Your task to perform on an android device: open app "Grab" Image 0: 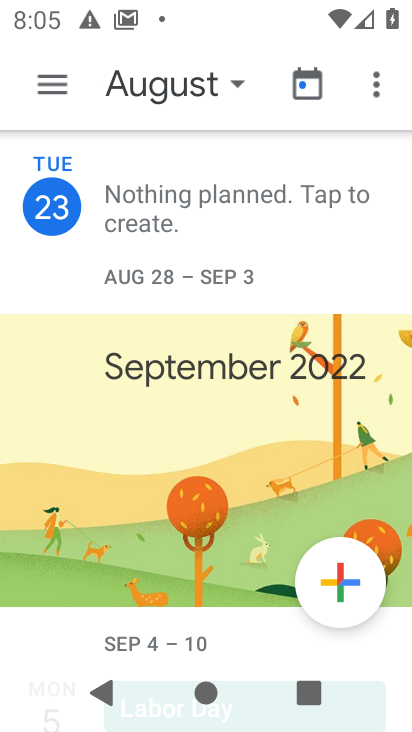
Step 0: press back button
Your task to perform on an android device: open app "Grab" Image 1: 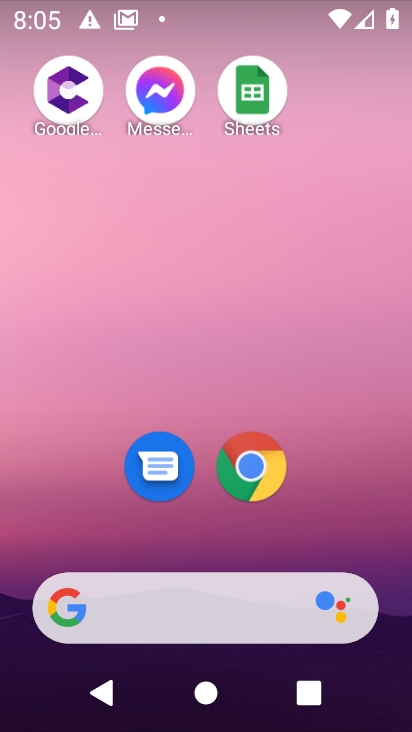
Step 1: drag from (190, 532) to (265, 21)
Your task to perform on an android device: open app "Grab" Image 2: 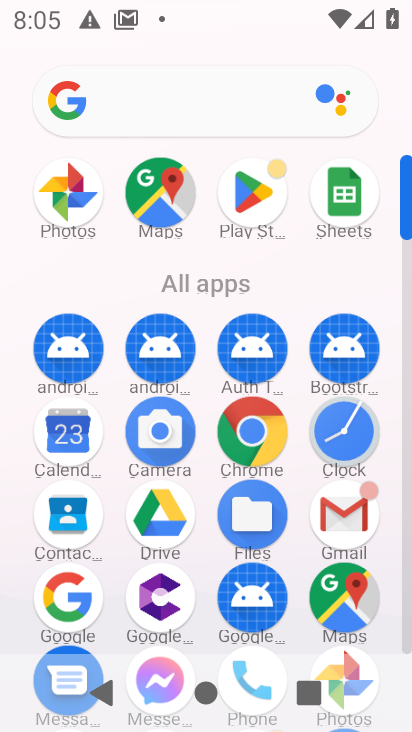
Step 2: click (252, 190)
Your task to perform on an android device: open app "Grab" Image 3: 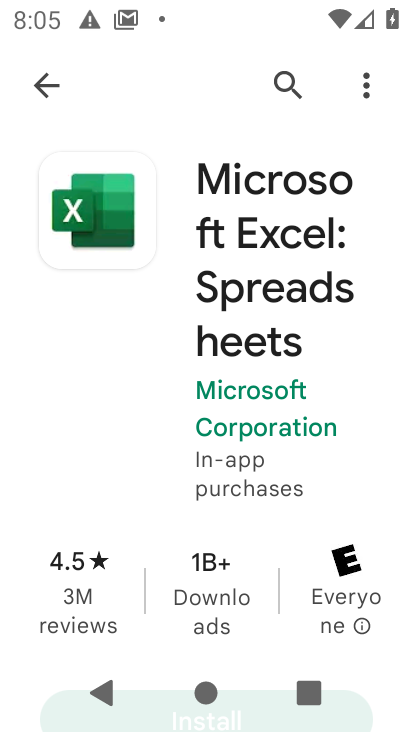
Step 3: click (284, 93)
Your task to perform on an android device: open app "Grab" Image 4: 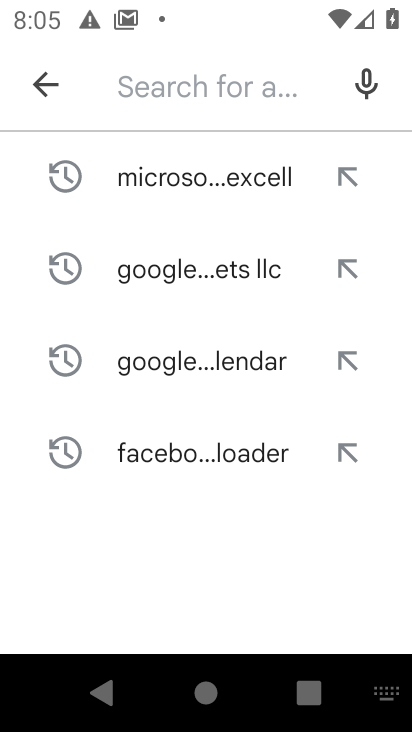
Step 4: click (197, 99)
Your task to perform on an android device: open app "Grab" Image 5: 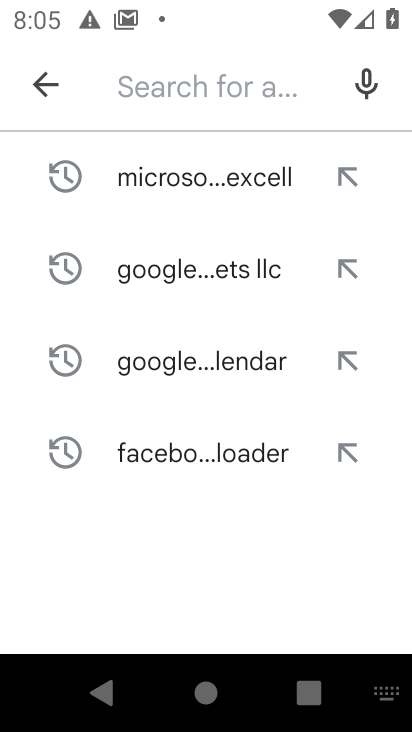
Step 5: click (157, 83)
Your task to perform on an android device: open app "Grab" Image 6: 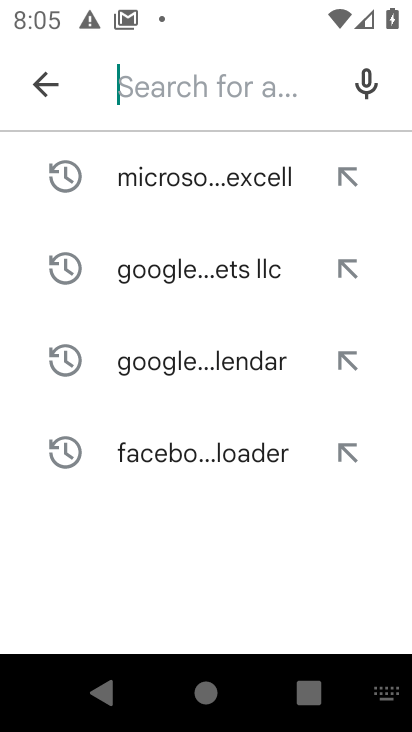
Step 6: click (68, 560)
Your task to perform on an android device: open app "Grab" Image 7: 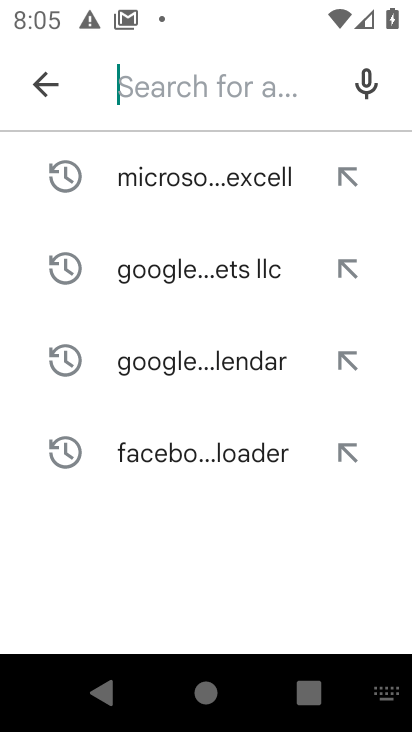
Step 7: type "Grab"
Your task to perform on an android device: open app "Grab" Image 8: 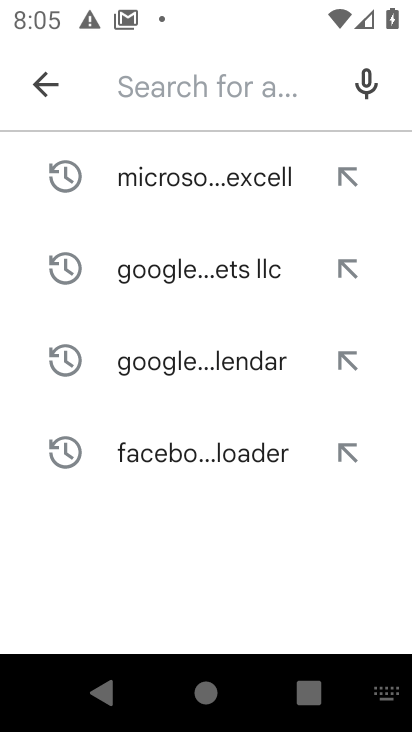
Step 8: click (68, 560)
Your task to perform on an android device: open app "Grab" Image 9: 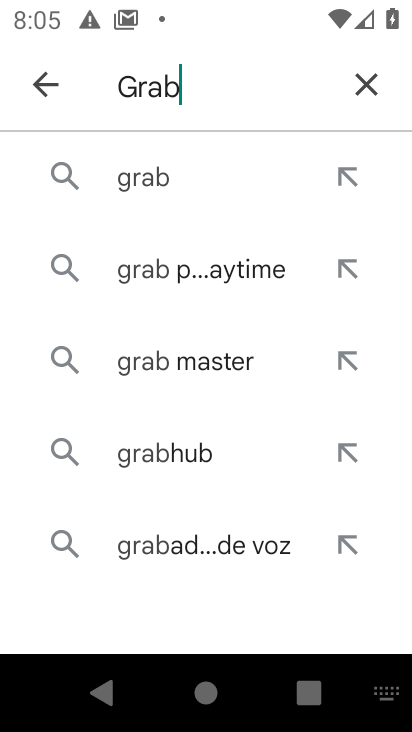
Step 9: click (170, 161)
Your task to perform on an android device: open app "Grab" Image 10: 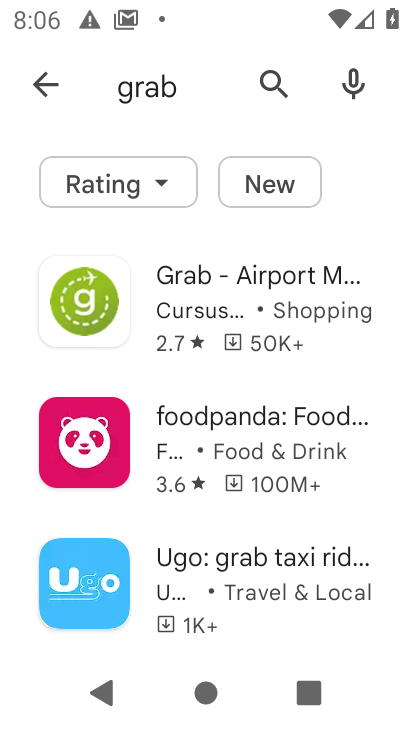
Step 10: click (232, 317)
Your task to perform on an android device: open app "Grab" Image 11: 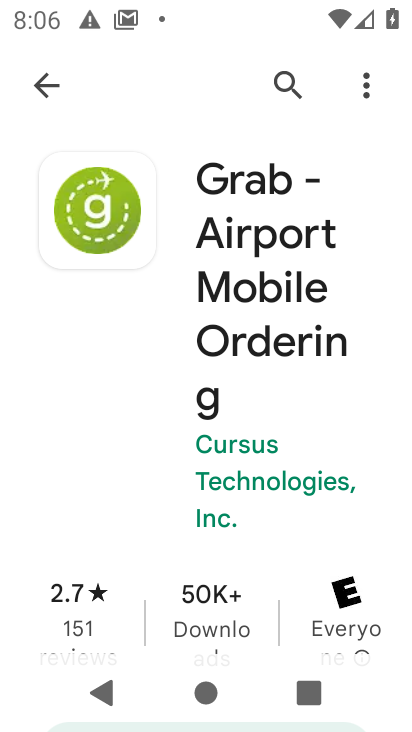
Step 11: drag from (200, 535) to (316, 79)
Your task to perform on an android device: open app "Grab" Image 12: 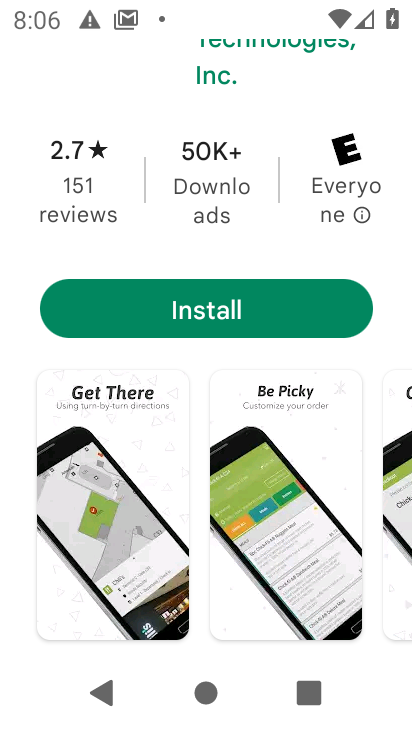
Step 12: click (258, 304)
Your task to perform on an android device: open app "Grab" Image 13: 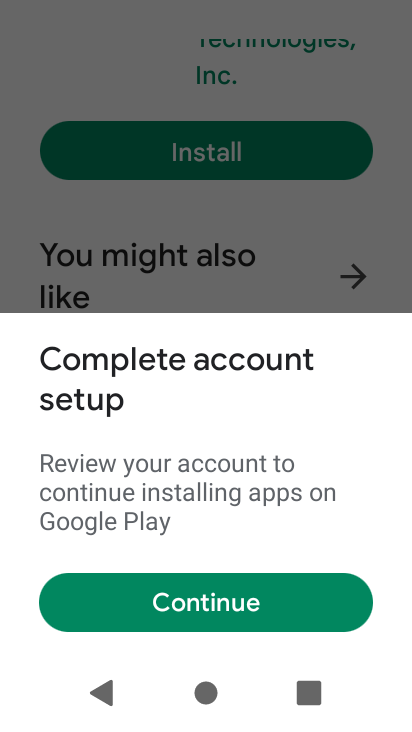
Step 13: click (227, 600)
Your task to perform on an android device: open app "Grab" Image 14: 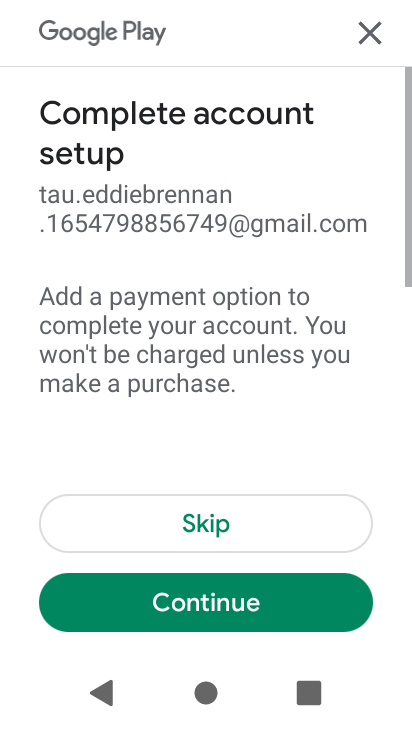
Step 14: click (196, 537)
Your task to perform on an android device: open app "Grab" Image 15: 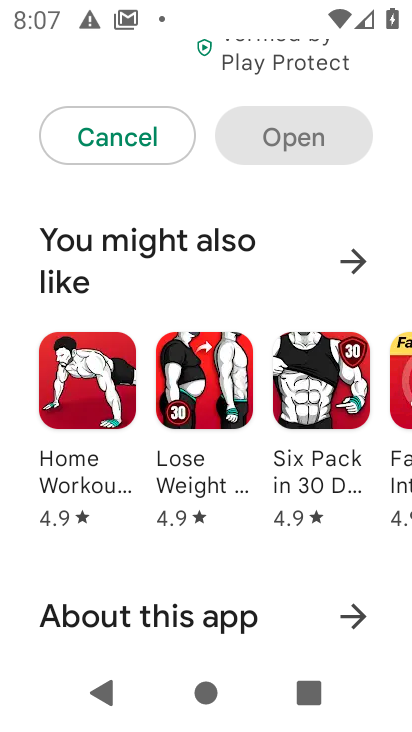
Step 15: drag from (240, 334) to (258, 730)
Your task to perform on an android device: open app "Grab" Image 16: 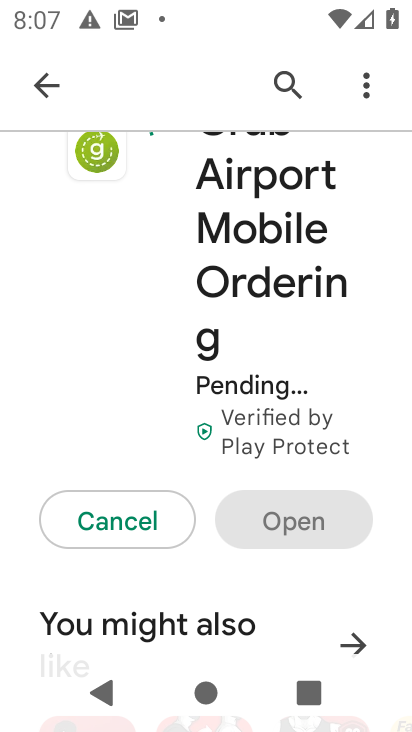
Step 16: click (141, 529)
Your task to perform on an android device: open app "Grab" Image 17: 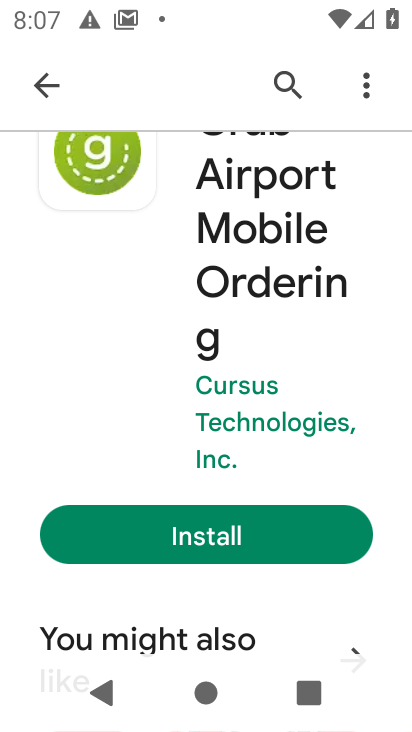
Step 17: task complete